Your task to perform on an android device: Open Google Chrome Image 0: 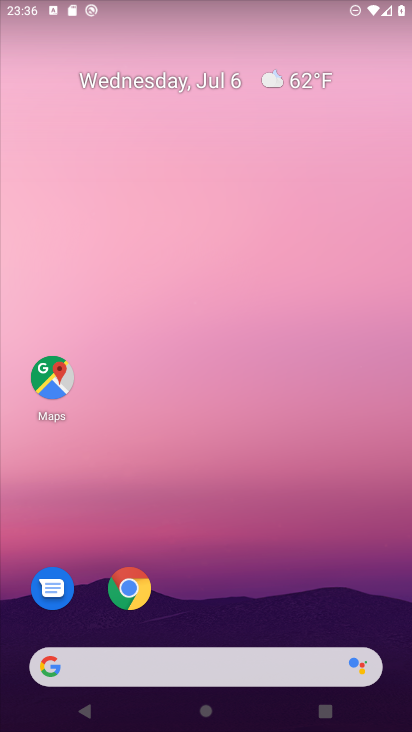
Step 0: click (129, 586)
Your task to perform on an android device: Open Google Chrome Image 1: 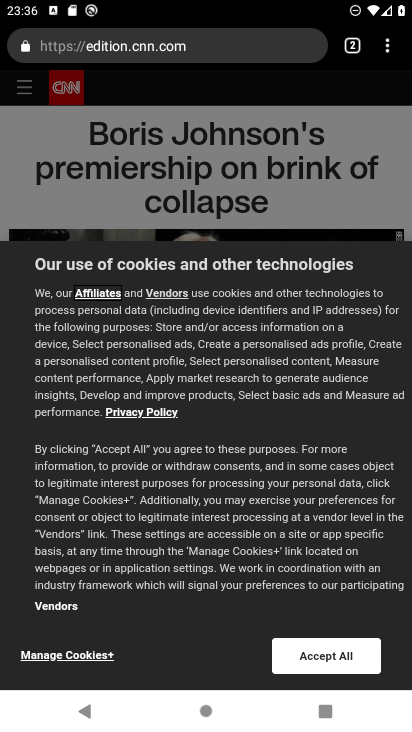
Step 1: task complete